Your task to perform on an android device: Open Google Maps Image 0: 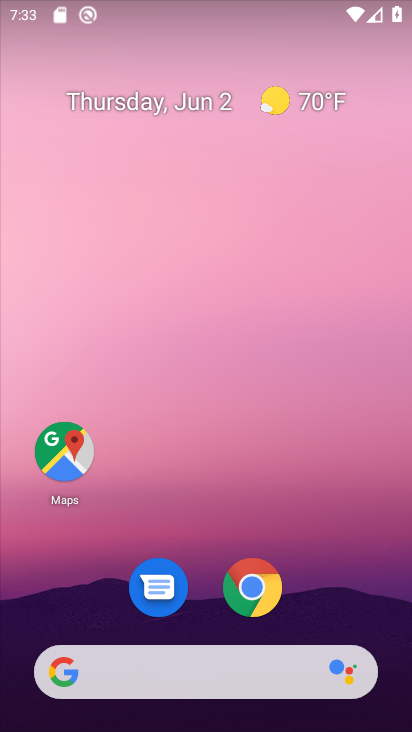
Step 0: click (68, 456)
Your task to perform on an android device: Open Google Maps Image 1: 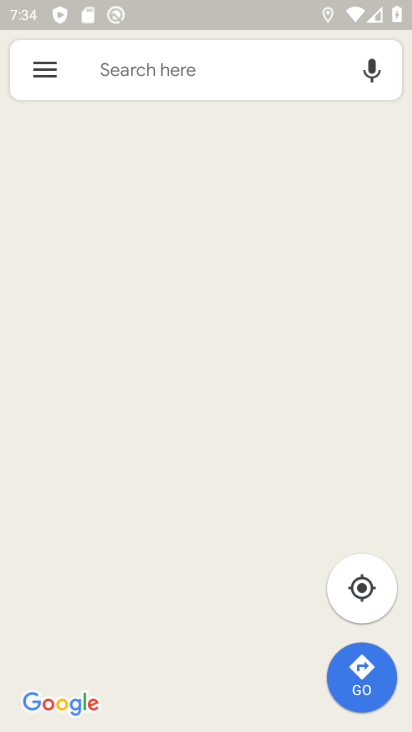
Step 1: task complete